Your task to perform on an android device: allow cookies in the chrome app Image 0: 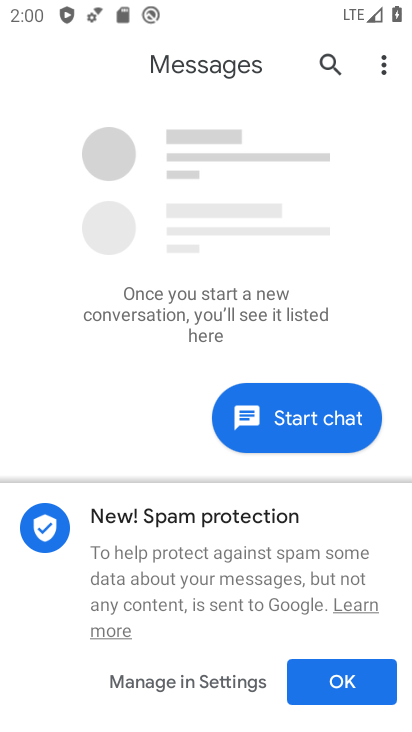
Step 0: press home button
Your task to perform on an android device: allow cookies in the chrome app Image 1: 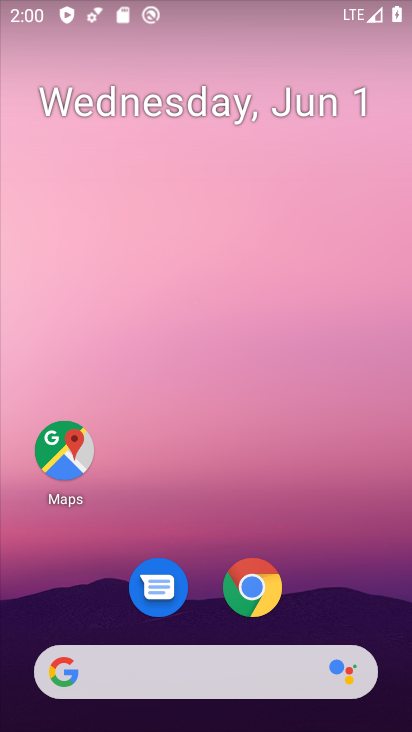
Step 1: click (227, 601)
Your task to perform on an android device: allow cookies in the chrome app Image 2: 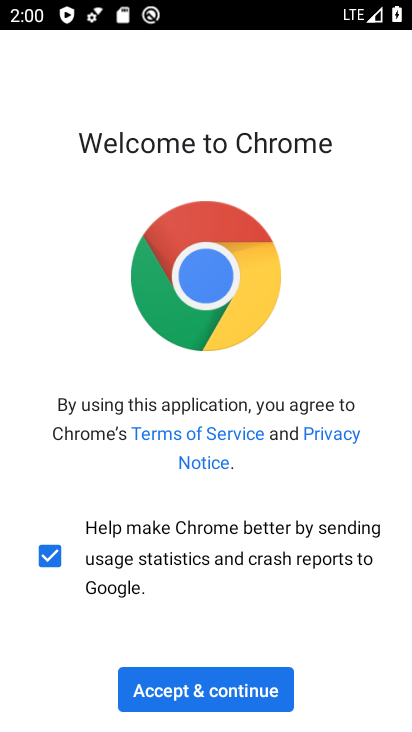
Step 2: click (236, 697)
Your task to perform on an android device: allow cookies in the chrome app Image 3: 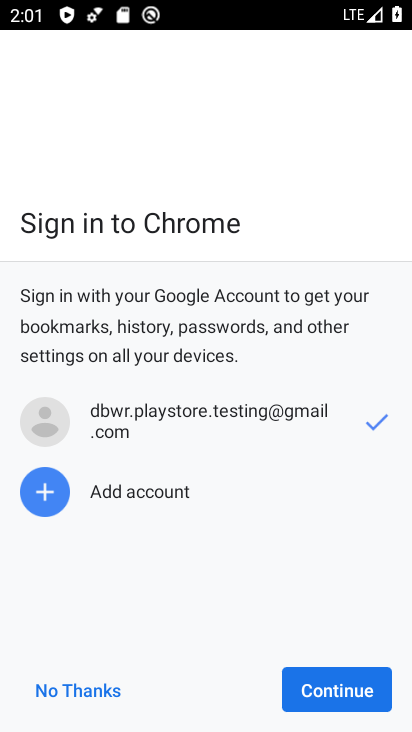
Step 3: click (282, 679)
Your task to perform on an android device: allow cookies in the chrome app Image 4: 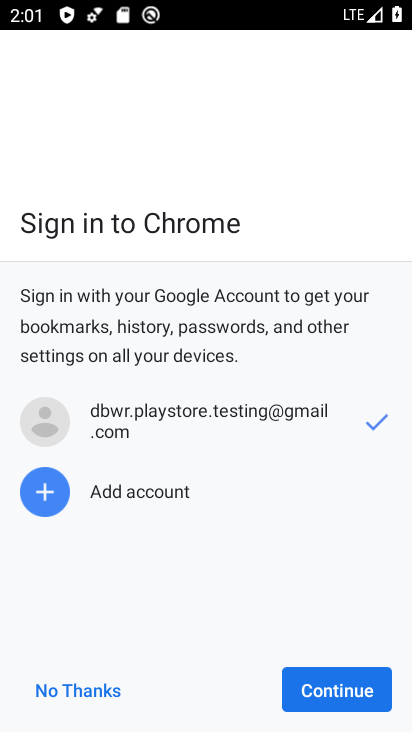
Step 4: click (326, 683)
Your task to perform on an android device: allow cookies in the chrome app Image 5: 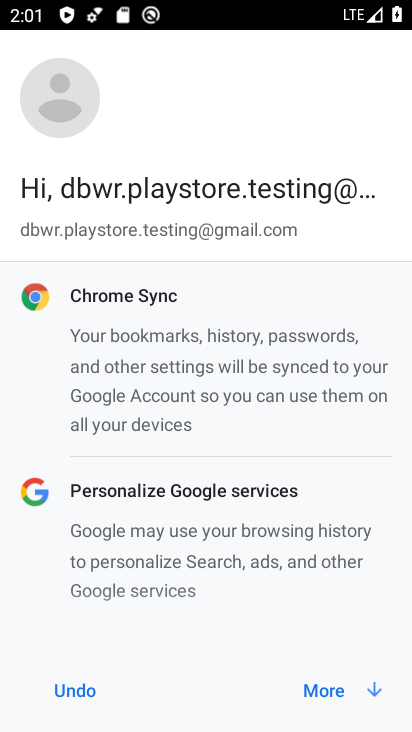
Step 5: click (327, 677)
Your task to perform on an android device: allow cookies in the chrome app Image 6: 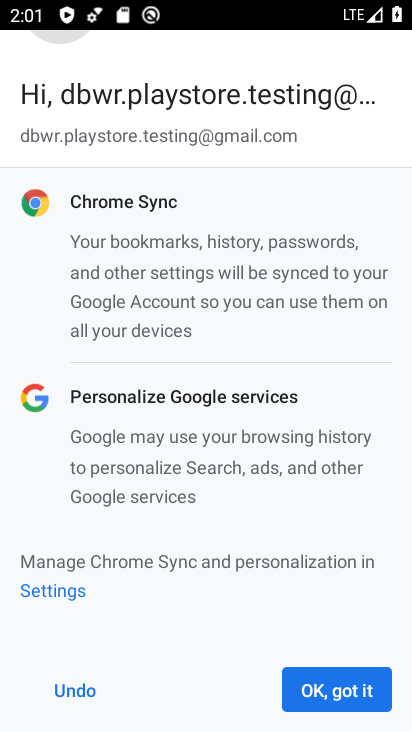
Step 6: click (327, 677)
Your task to perform on an android device: allow cookies in the chrome app Image 7: 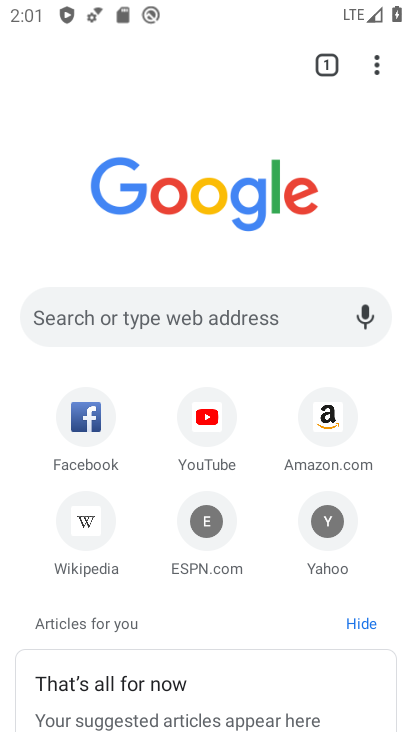
Step 7: drag from (381, 72) to (244, 544)
Your task to perform on an android device: allow cookies in the chrome app Image 8: 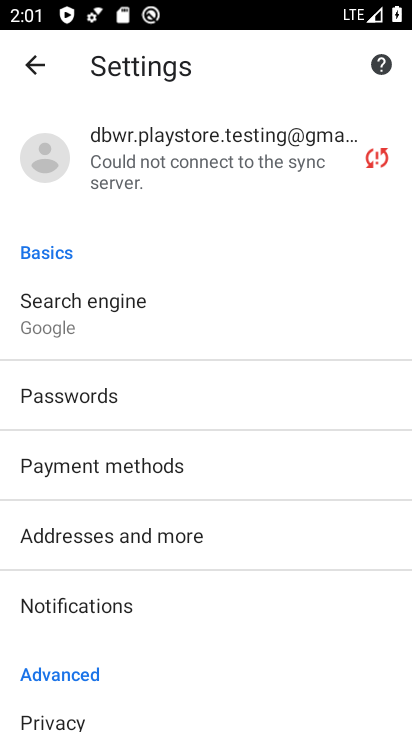
Step 8: drag from (192, 591) to (174, 399)
Your task to perform on an android device: allow cookies in the chrome app Image 9: 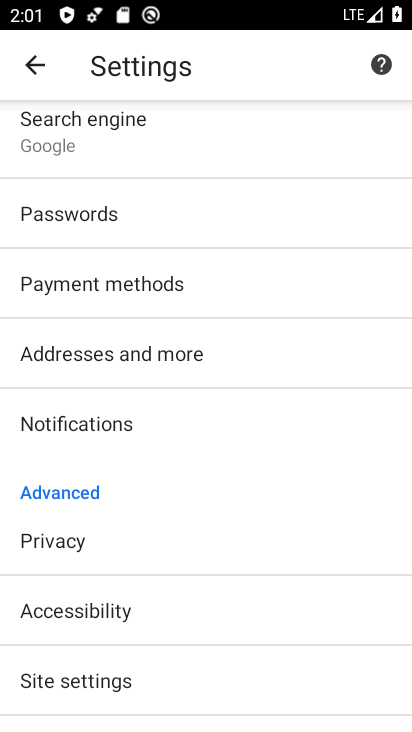
Step 9: drag from (188, 523) to (175, 363)
Your task to perform on an android device: allow cookies in the chrome app Image 10: 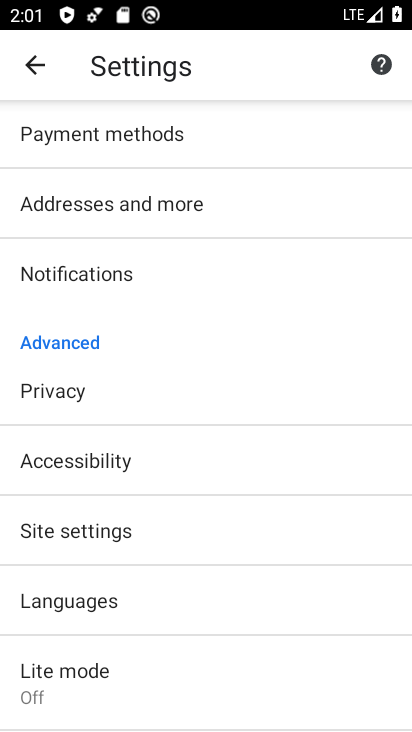
Step 10: click (147, 528)
Your task to perform on an android device: allow cookies in the chrome app Image 11: 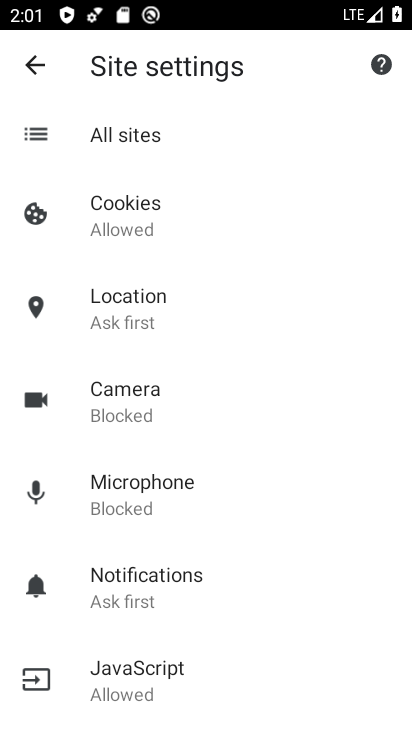
Step 11: click (118, 218)
Your task to perform on an android device: allow cookies in the chrome app Image 12: 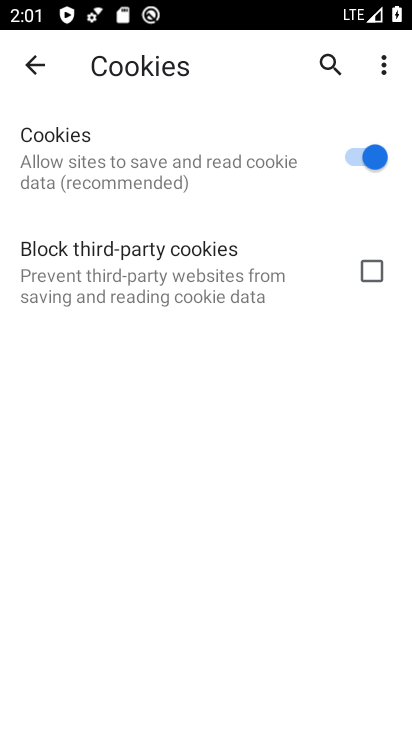
Step 12: task complete